Your task to perform on an android device: toggle priority inbox in the gmail app Image 0: 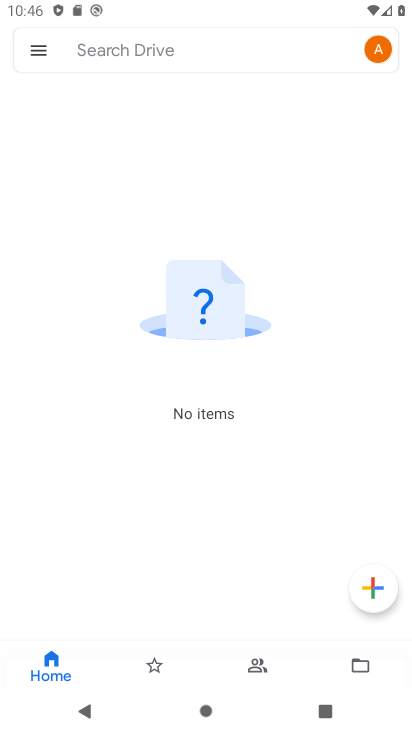
Step 0: press home button
Your task to perform on an android device: toggle priority inbox in the gmail app Image 1: 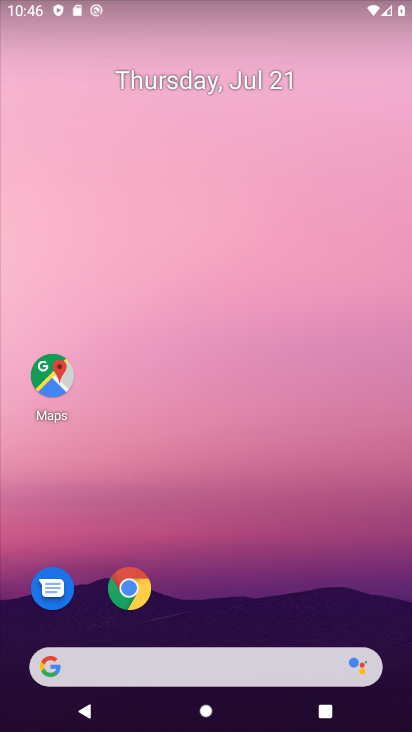
Step 1: drag from (296, 595) to (296, 80)
Your task to perform on an android device: toggle priority inbox in the gmail app Image 2: 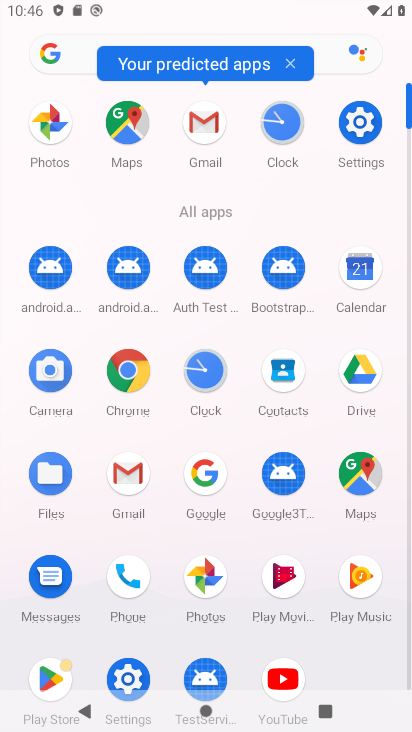
Step 2: click (206, 128)
Your task to perform on an android device: toggle priority inbox in the gmail app Image 3: 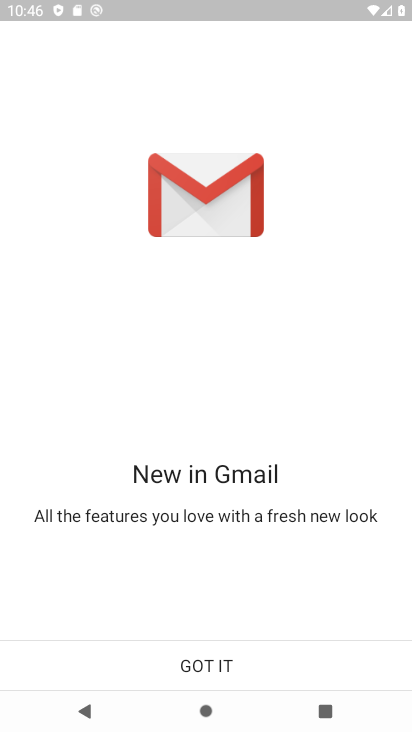
Step 3: click (220, 669)
Your task to perform on an android device: toggle priority inbox in the gmail app Image 4: 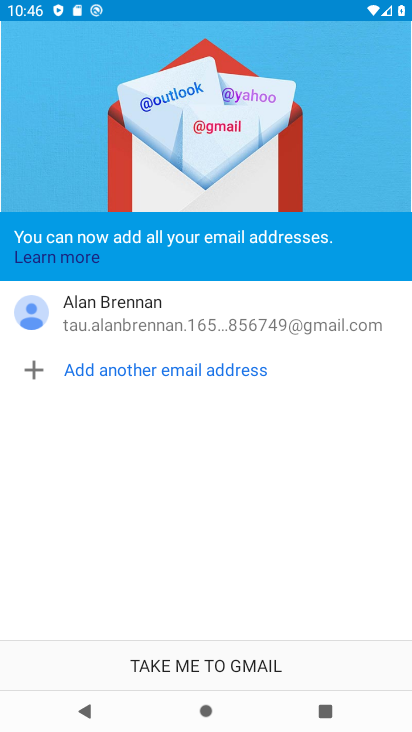
Step 4: click (220, 665)
Your task to perform on an android device: toggle priority inbox in the gmail app Image 5: 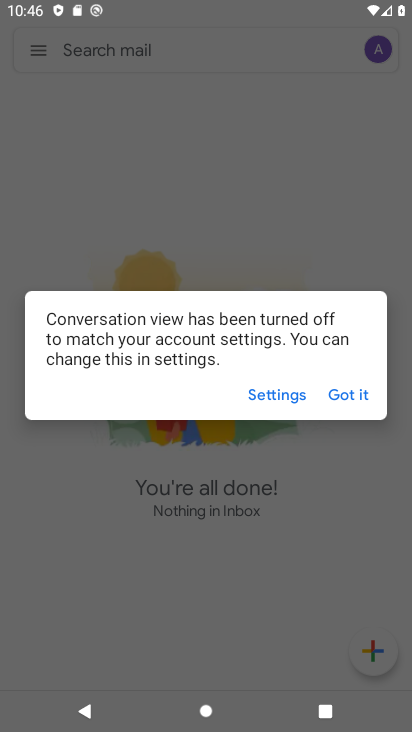
Step 5: click (356, 393)
Your task to perform on an android device: toggle priority inbox in the gmail app Image 6: 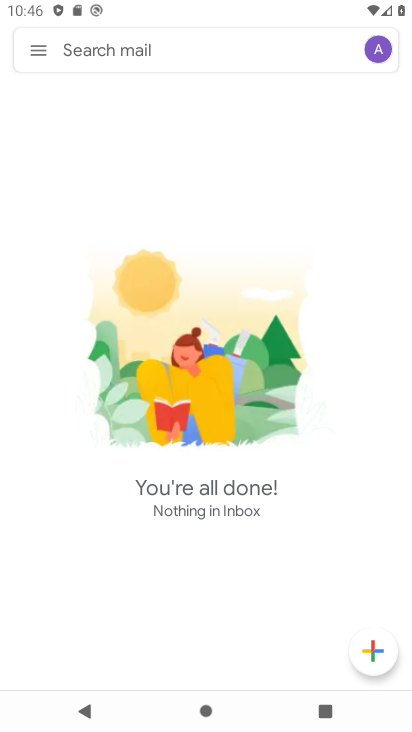
Step 6: click (40, 53)
Your task to perform on an android device: toggle priority inbox in the gmail app Image 7: 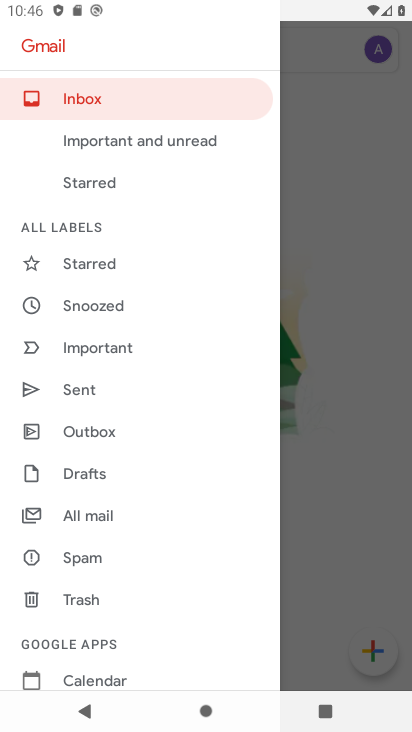
Step 7: drag from (108, 652) to (106, 249)
Your task to perform on an android device: toggle priority inbox in the gmail app Image 8: 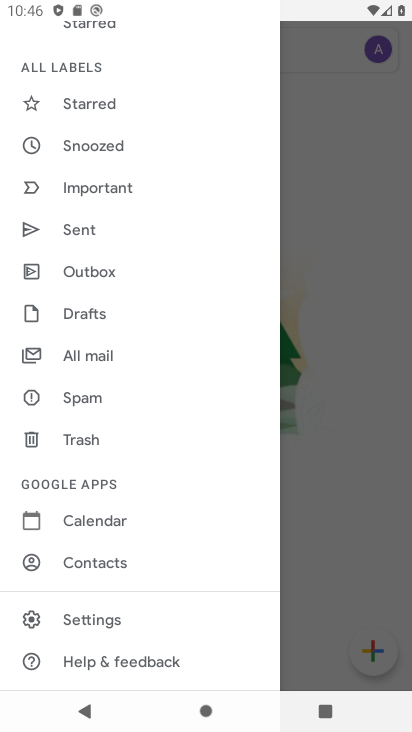
Step 8: click (88, 628)
Your task to perform on an android device: toggle priority inbox in the gmail app Image 9: 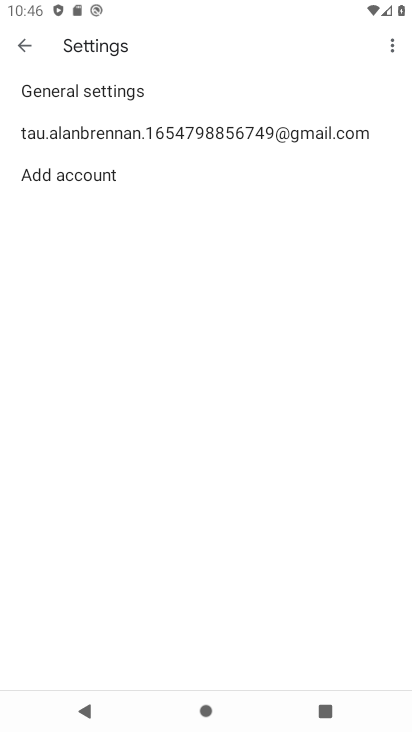
Step 9: click (236, 138)
Your task to perform on an android device: toggle priority inbox in the gmail app Image 10: 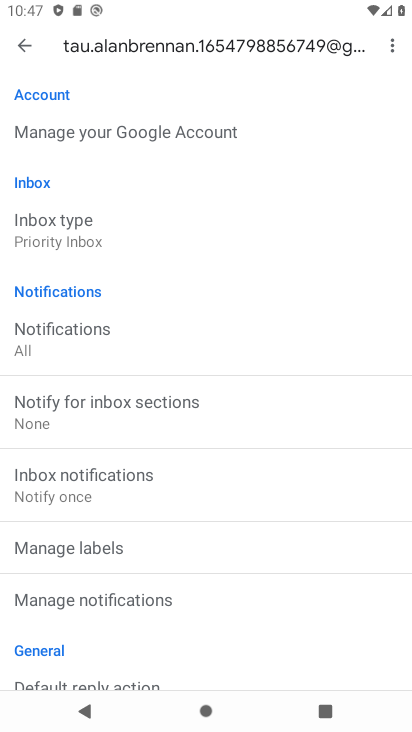
Step 10: click (158, 234)
Your task to perform on an android device: toggle priority inbox in the gmail app Image 11: 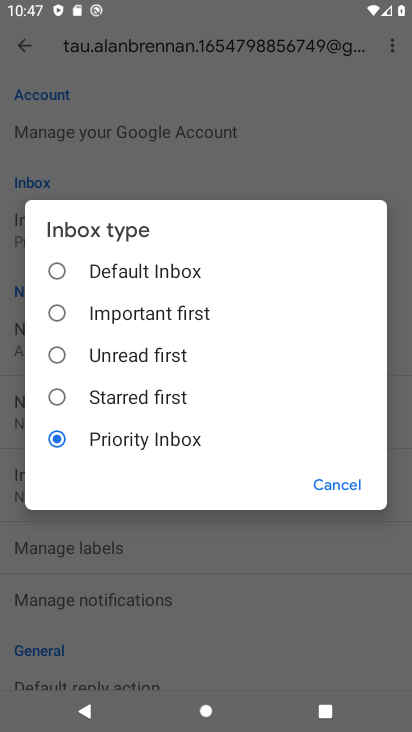
Step 11: click (166, 275)
Your task to perform on an android device: toggle priority inbox in the gmail app Image 12: 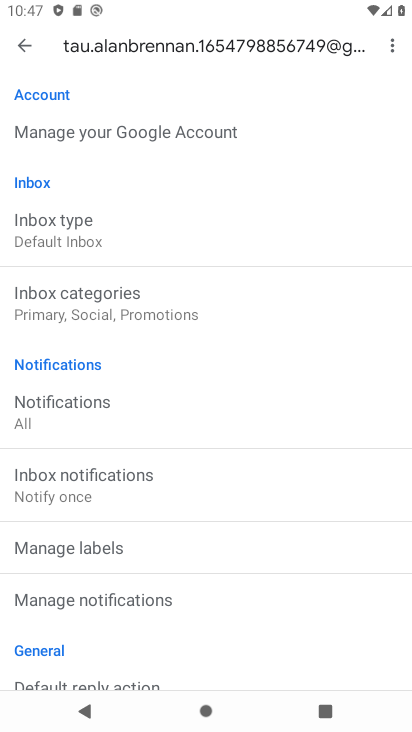
Step 12: task complete